Your task to perform on an android device: add a contact Image 0: 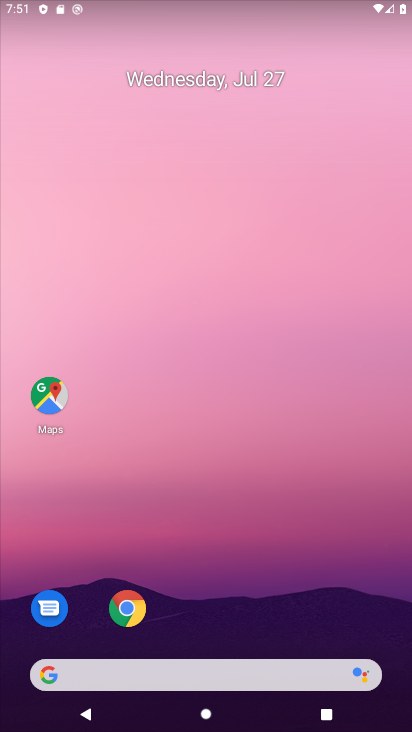
Step 0: drag from (274, 591) to (196, 197)
Your task to perform on an android device: add a contact Image 1: 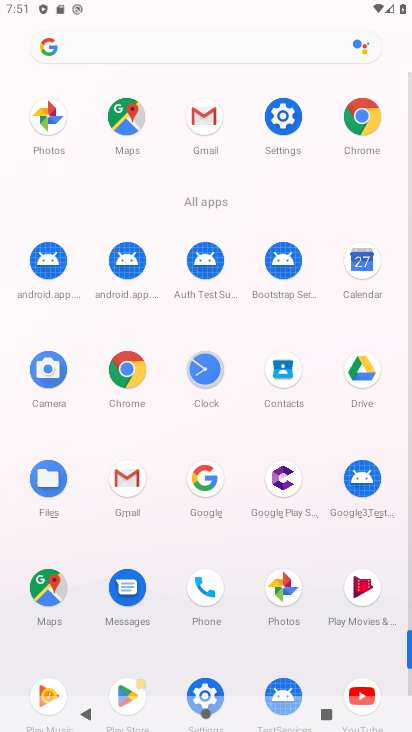
Step 1: click (286, 373)
Your task to perform on an android device: add a contact Image 2: 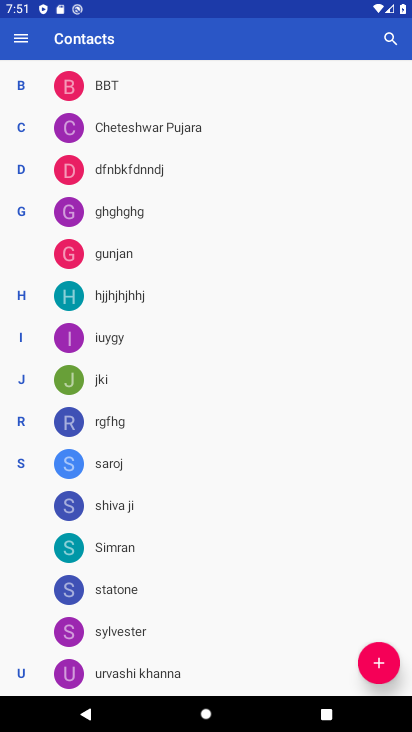
Step 2: click (386, 655)
Your task to perform on an android device: add a contact Image 3: 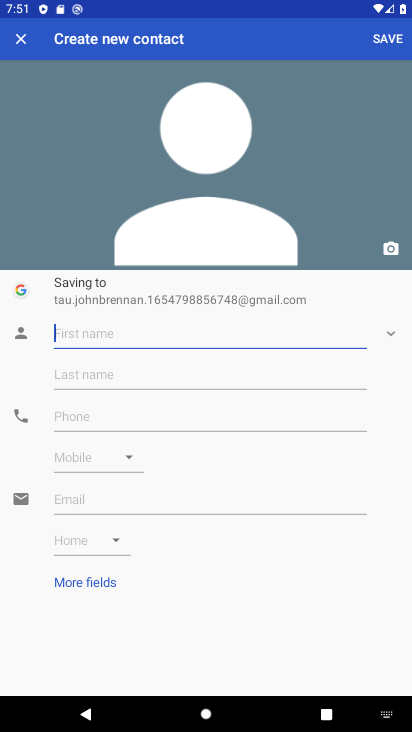
Step 3: type "asdgfg"
Your task to perform on an android device: add a contact Image 4: 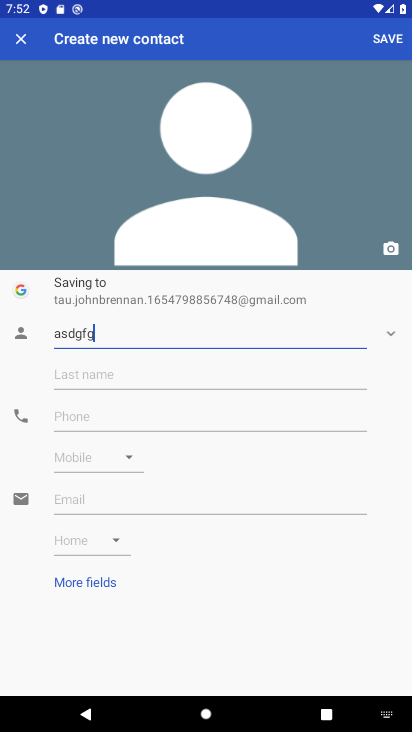
Step 4: click (112, 416)
Your task to perform on an android device: add a contact Image 5: 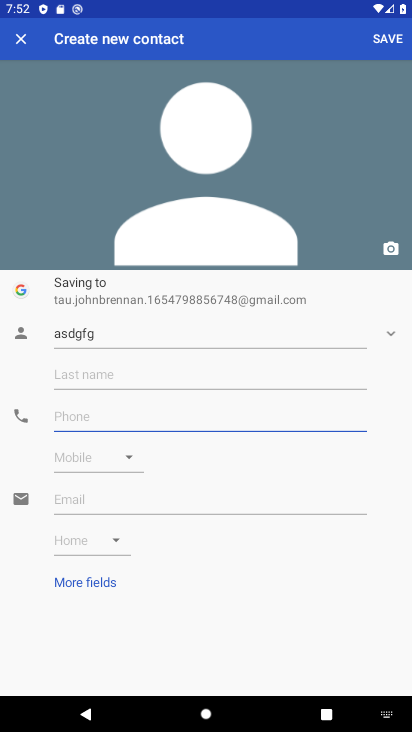
Step 5: type "757654578"
Your task to perform on an android device: add a contact Image 6: 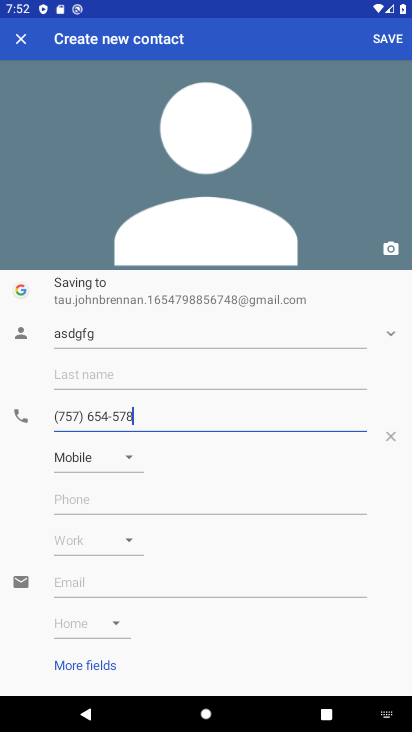
Step 6: type ""
Your task to perform on an android device: add a contact Image 7: 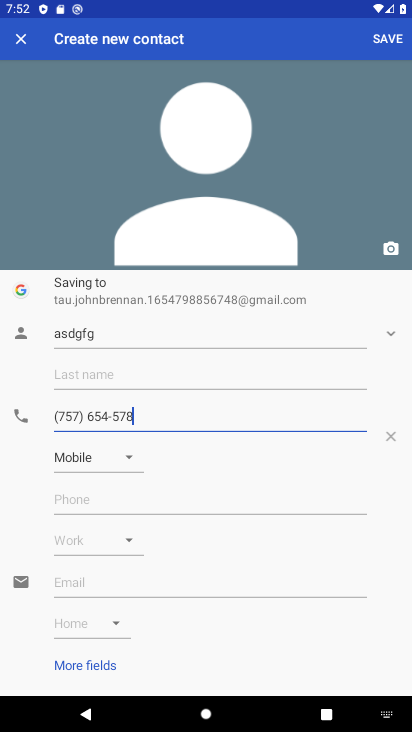
Step 7: click (375, 35)
Your task to perform on an android device: add a contact Image 8: 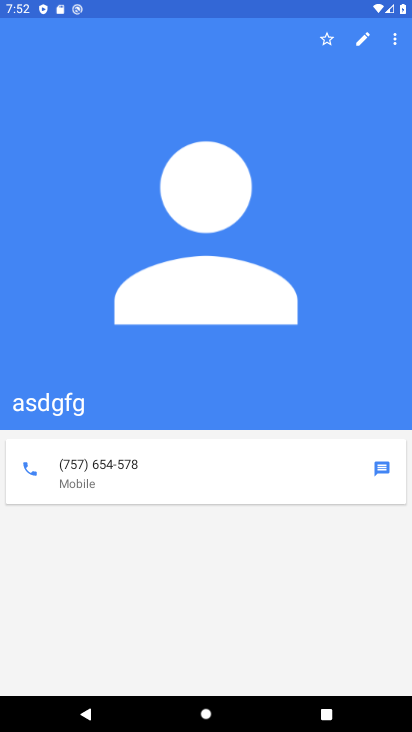
Step 8: task complete